Your task to perform on an android device: turn on the 12-hour format for clock Image 0: 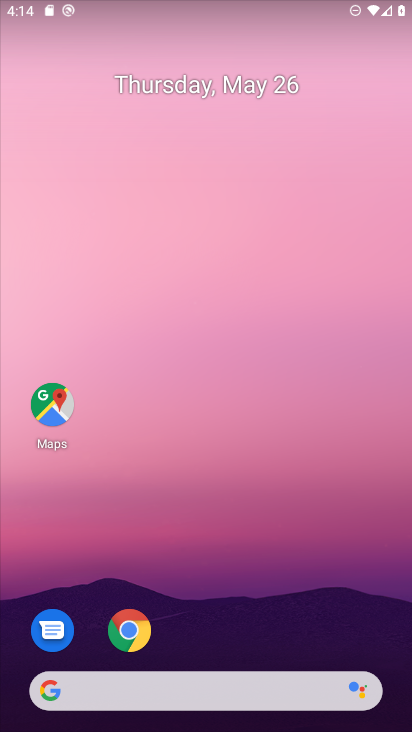
Step 0: drag from (252, 629) to (230, 137)
Your task to perform on an android device: turn on the 12-hour format for clock Image 1: 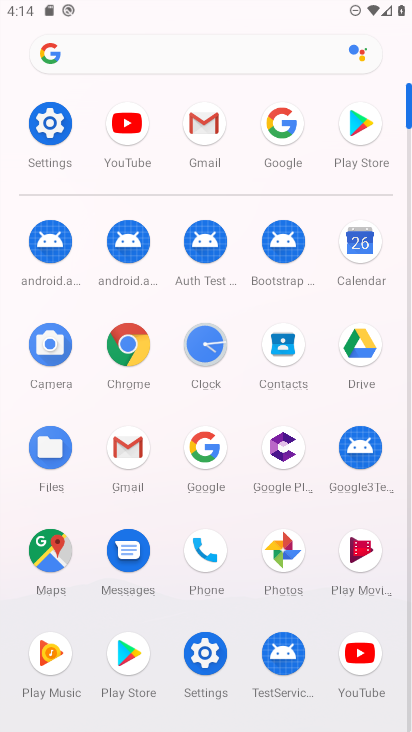
Step 1: click (202, 345)
Your task to perform on an android device: turn on the 12-hour format for clock Image 2: 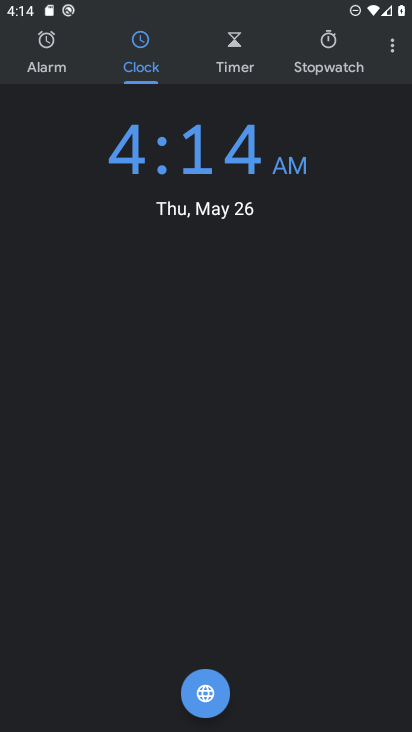
Step 2: click (393, 45)
Your task to perform on an android device: turn on the 12-hour format for clock Image 3: 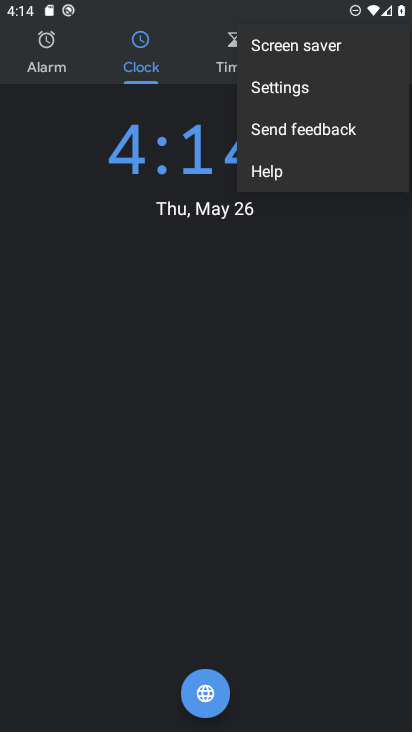
Step 3: click (293, 93)
Your task to perform on an android device: turn on the 12-hour format for clock Image 4: 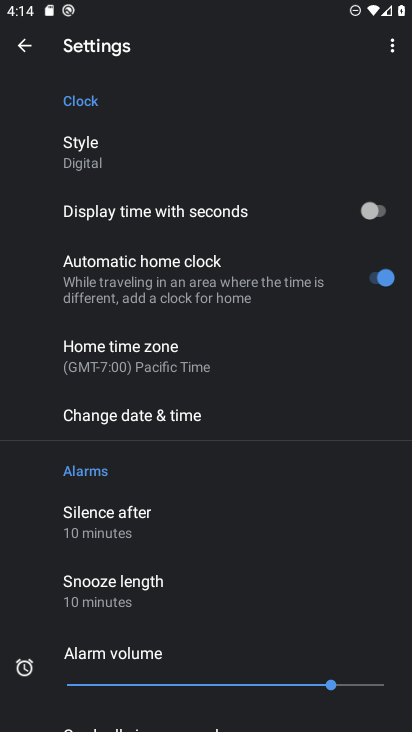
Step 4: drag from (205, 570) to (257, 477)
Your task to perform on an android device: turn on the 12-hour format for clock Image 5: 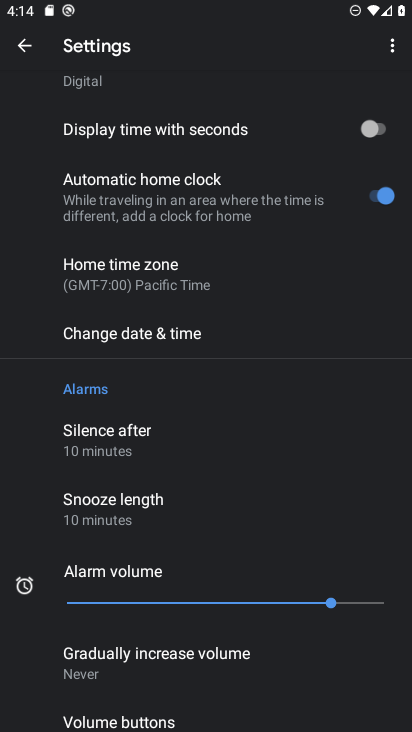
Step 5: click (189, 343)
Your task to perform on an android device: turn on the 12-hour format for clock Image 6: 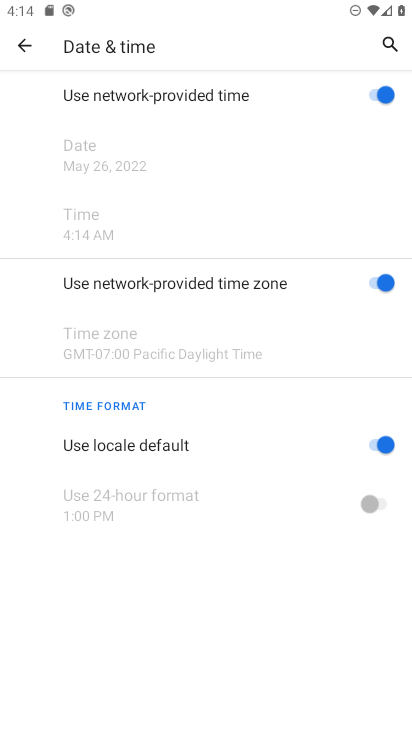
Step 6: task complete